Your task to perform on an android device: turn off location Image 0: 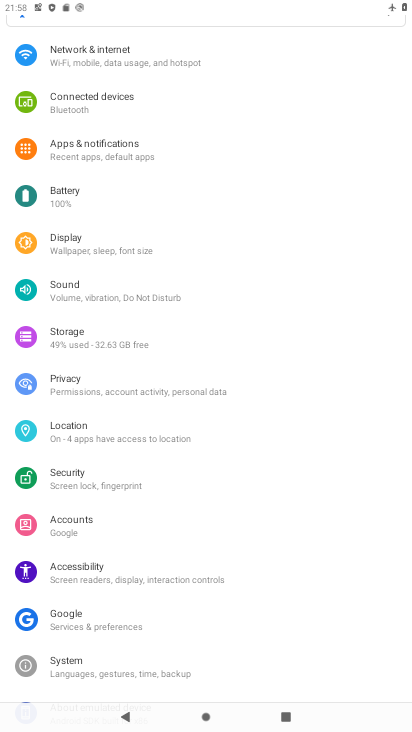
Step 0: click (98, 433)
Your task to perform on an android device: turn off location Image 1: 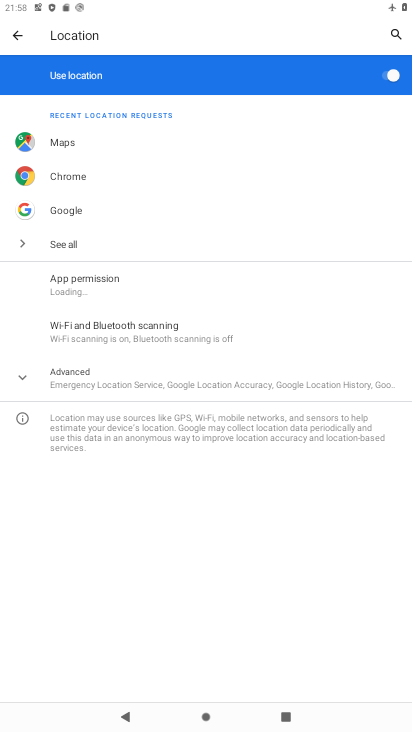
Step 1: click (387, 67)
Your task to perform on an android device: turn off location Image 2: 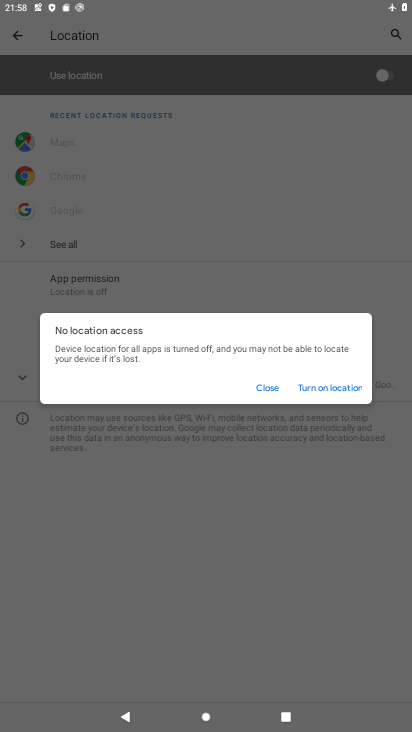
Step 2: task complete